Your task to perform on an android device: Open battery settings Image 0: 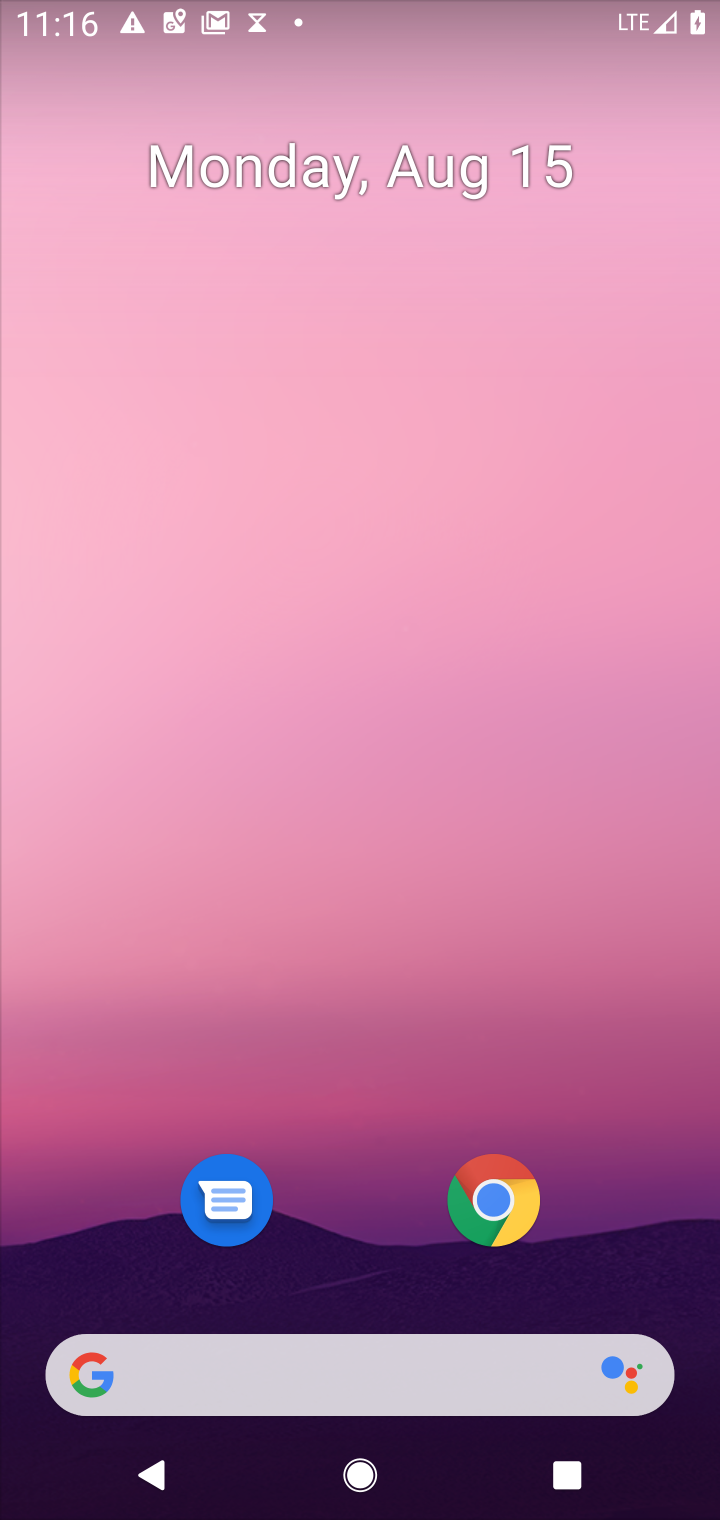
Step 0: drag from (360, 1232) to (309, 402)
Your task to perform on an android device: Open battery settings Image 1: 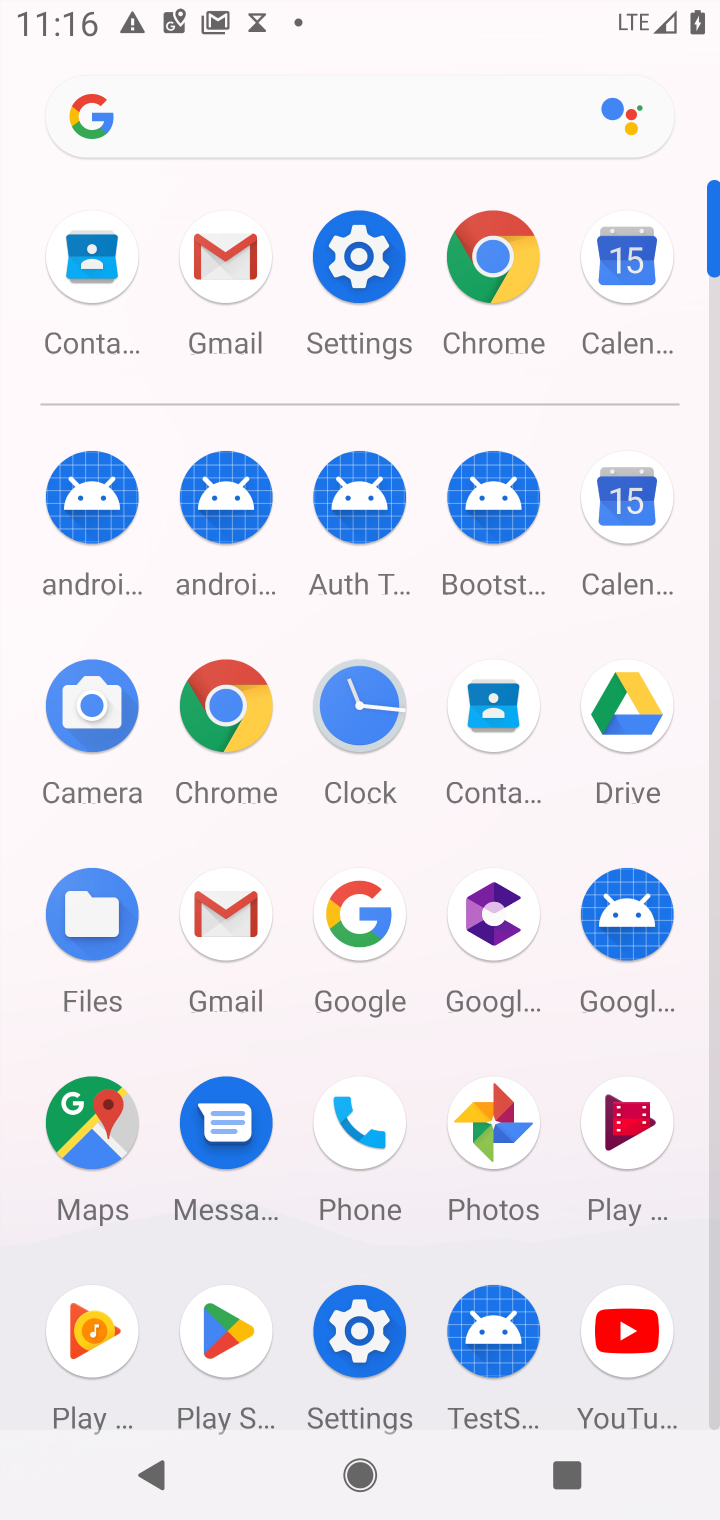
Step 1: click (358, 254)
Your task to perform on an android device: Open battery settings Image 2: 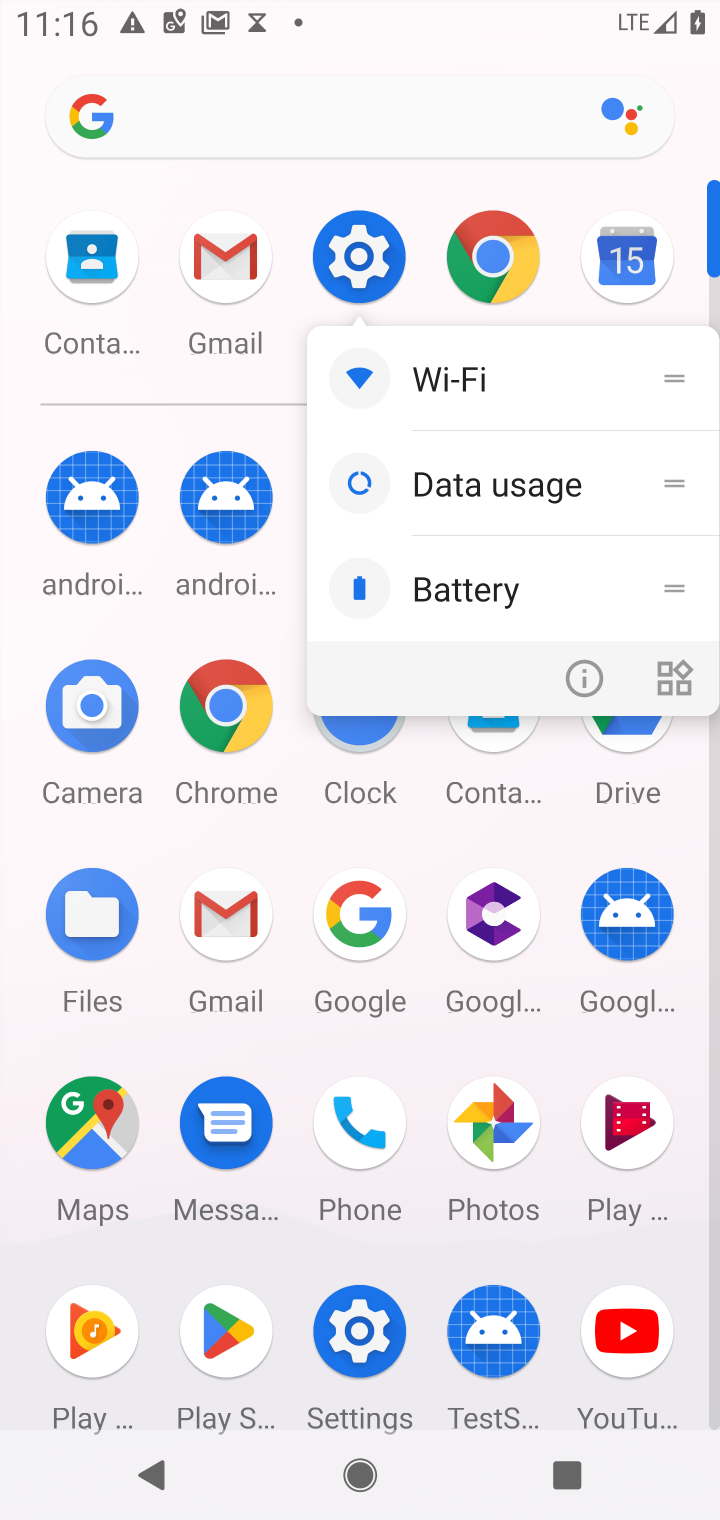
Step 2: click (358, 254)
Your task to perform on an android device: Open battery settings Image 3: 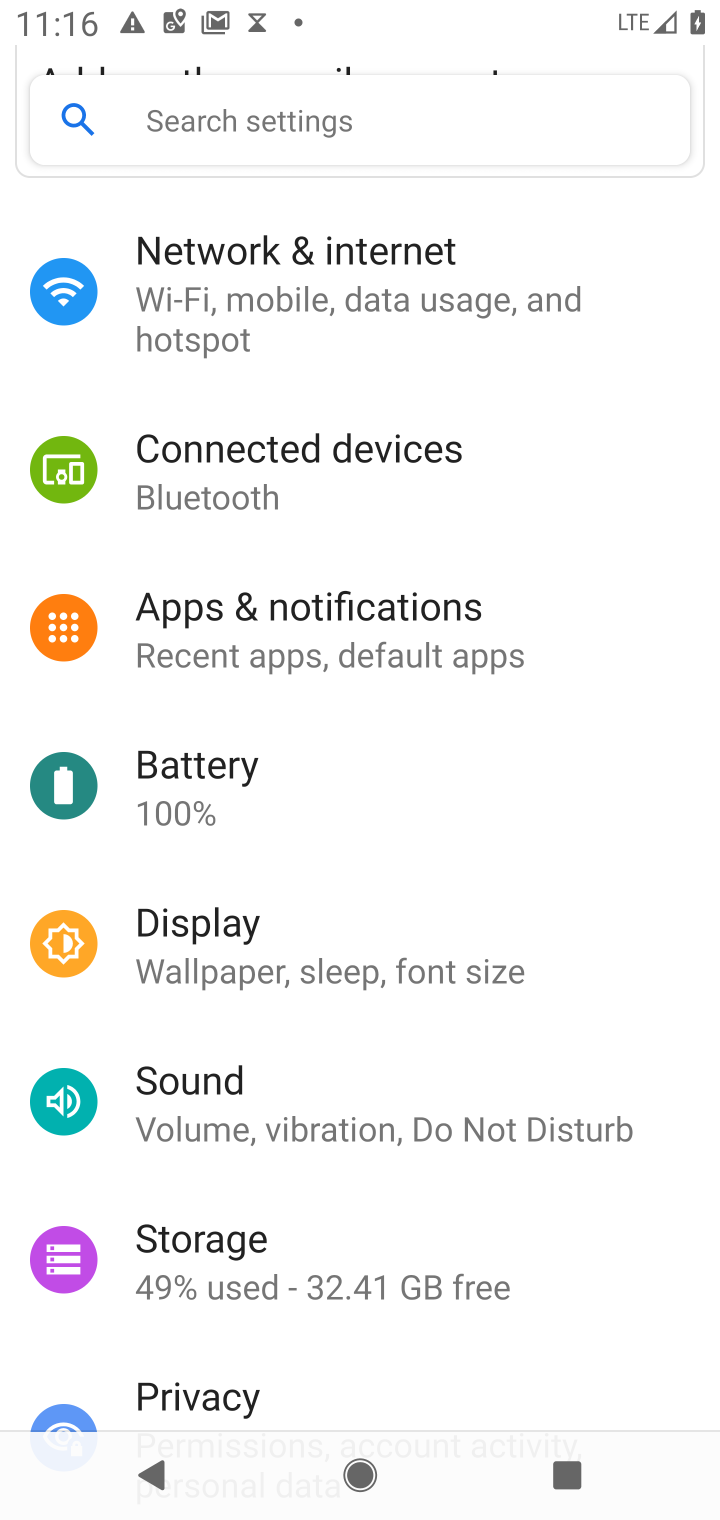
Step 3: click (356, 804)
Your task to perform on an android device: Open battery settings Image 4: 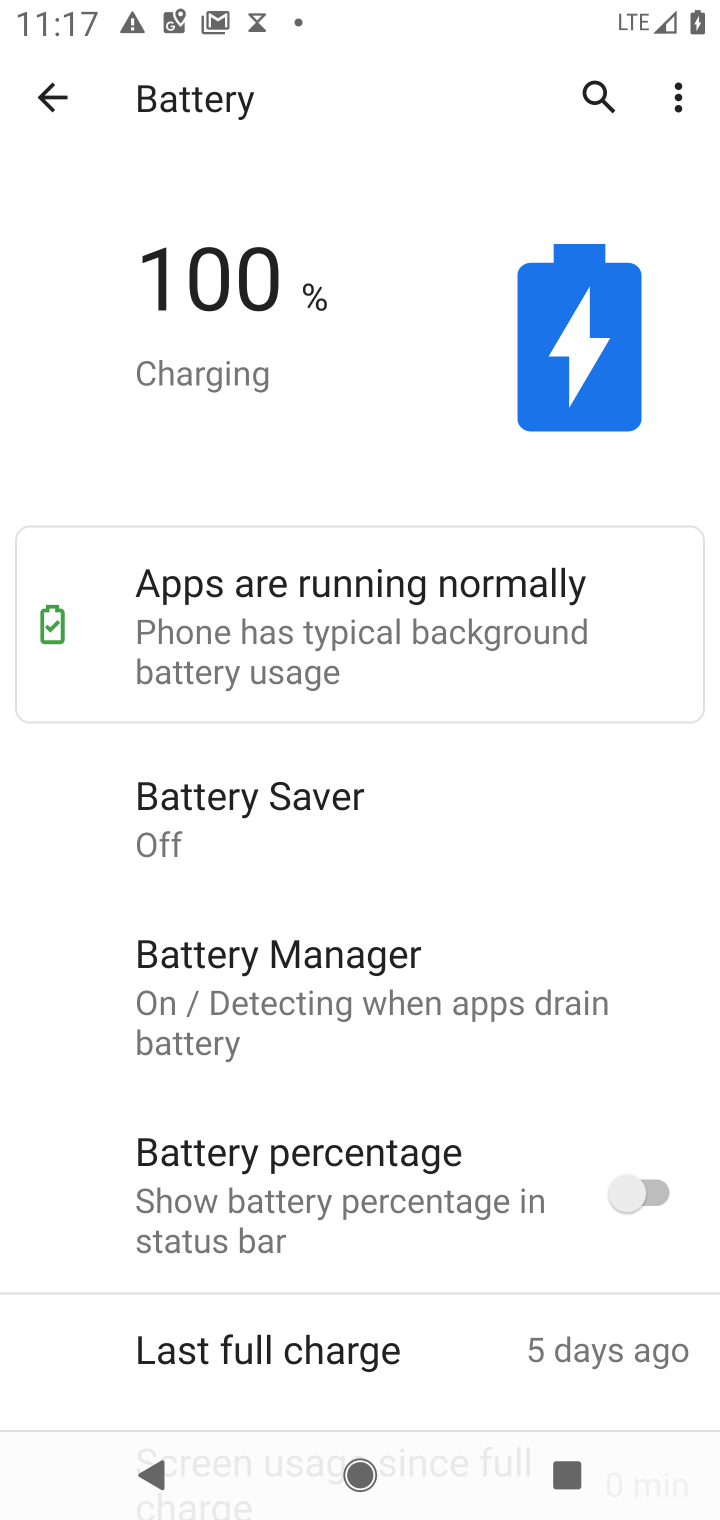
Step 4: task complete